Your task to perform on an android device: What's the weather going to be tomorrow? Image 0: 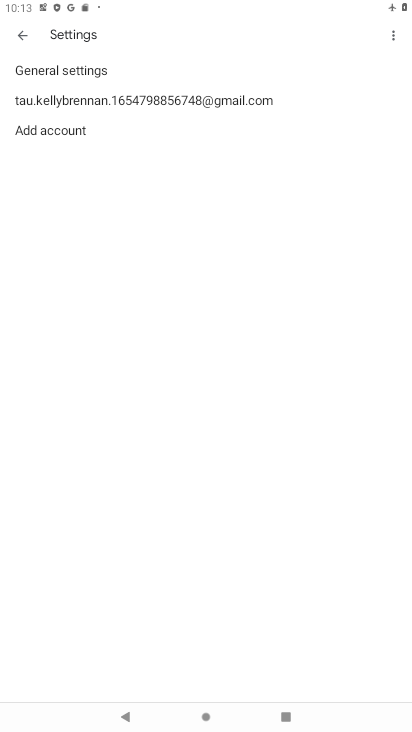
Step 0: task complete